Your task to perform on an android device: Search for sushi restaurants on Maps Image 0: 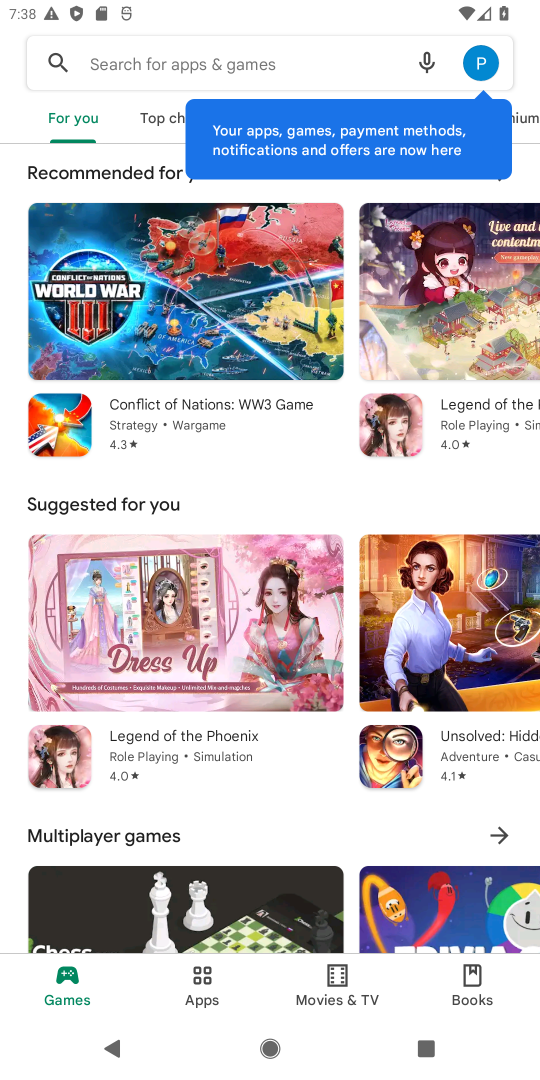
Step 0: press home button
Your task to perform on an android device: Search for sushi restaurants on Maps Image 1: 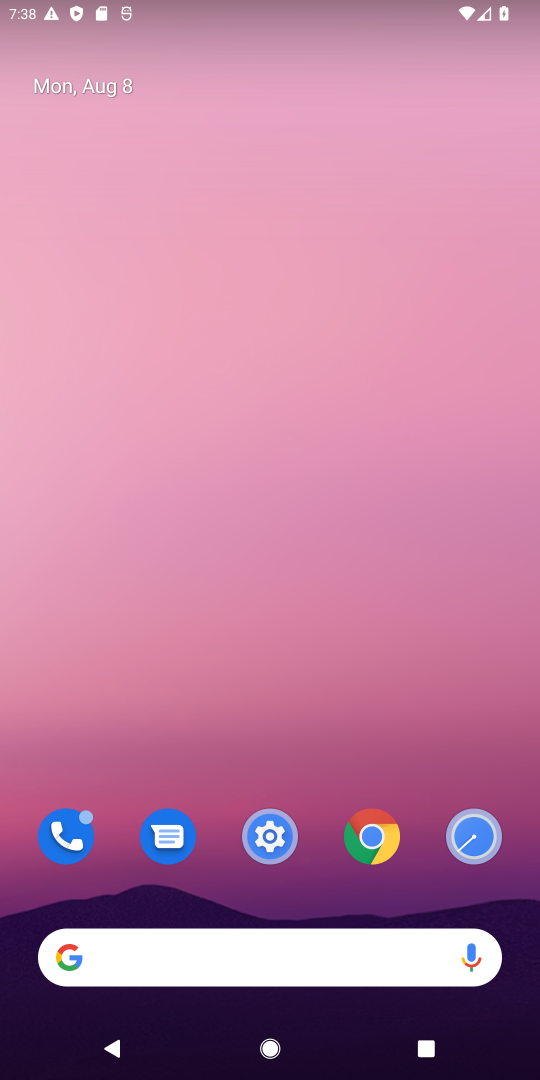
Step 1: drag from (316, 777) to (279, 81)
Your task to perform on an android device: Search for sushi restaurants on Maps Image 2: 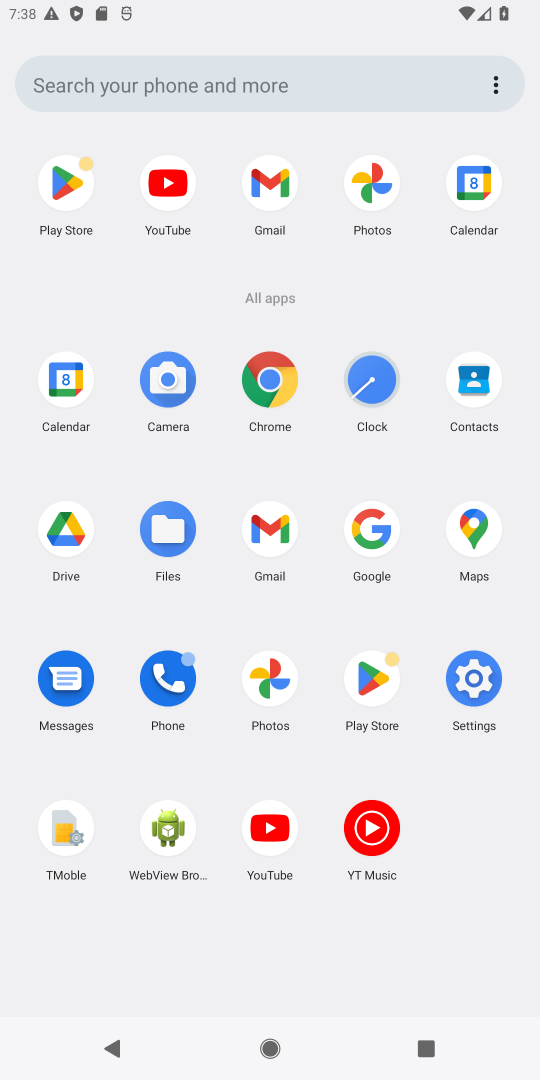
Step 2: click (488, 515)
Your task to perform on an android device: Search for sushi restaurants on Maps Image 3: 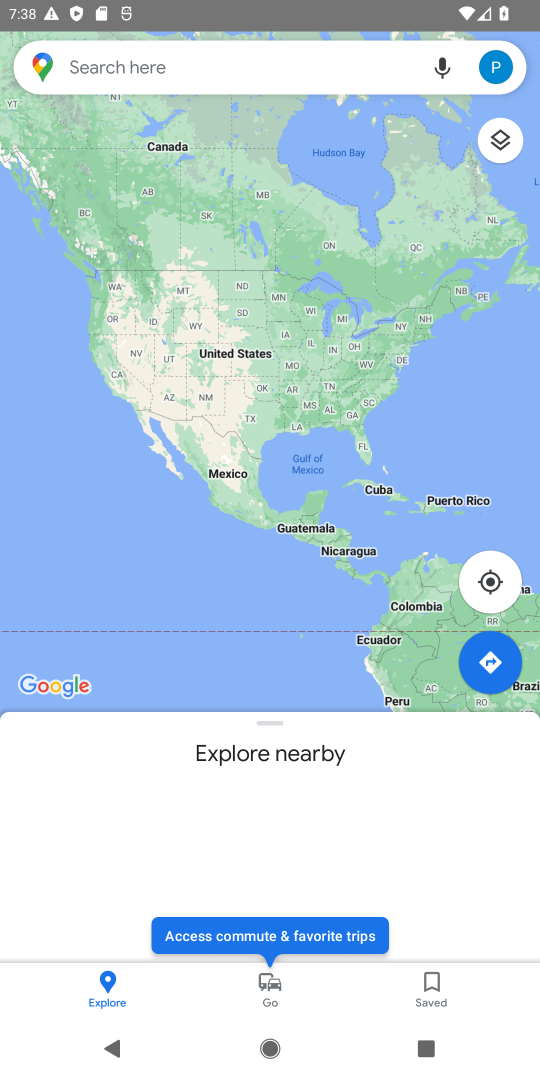
Step 3: click (199, 77)
Your task to perform on an android device: Search for sushi restaurants on Maps Image 4: 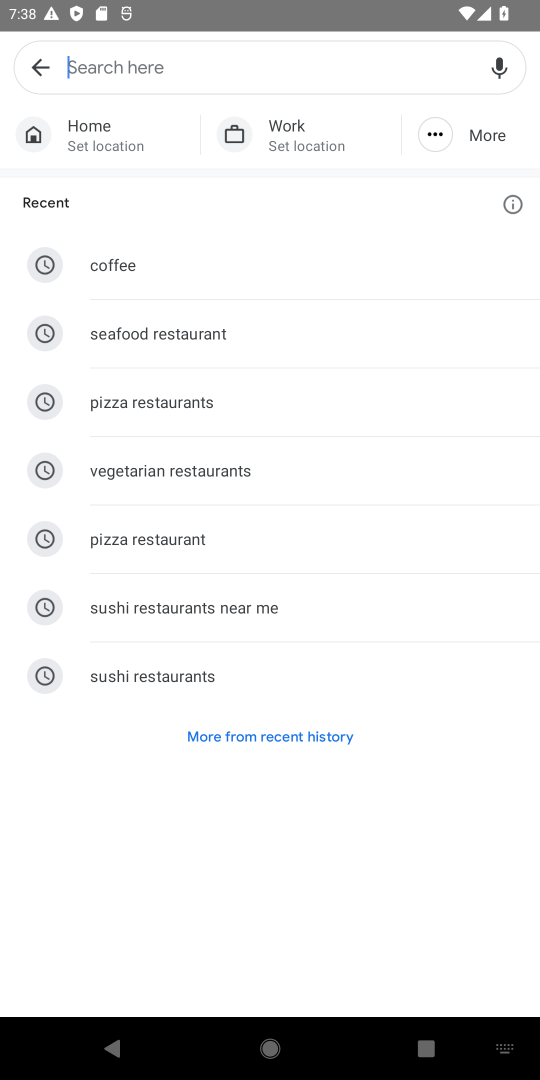
Step 4: click (191, 669)
Your task to perform on an android device: Search for sushi restaurants on Maps Image 5: 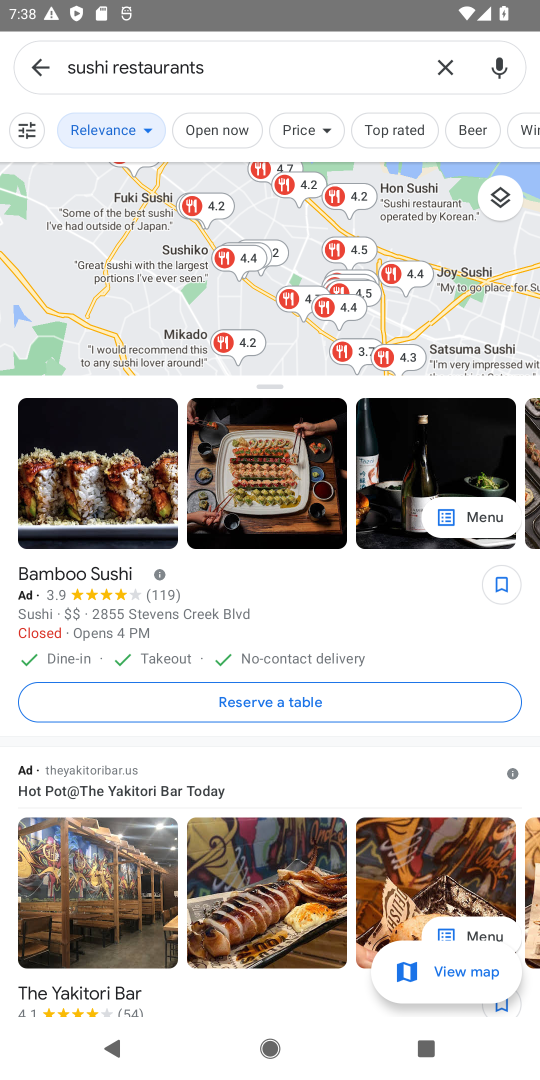
Step 5: task complete